Your task to perform on an android device: turn on airplane mode Image 0: 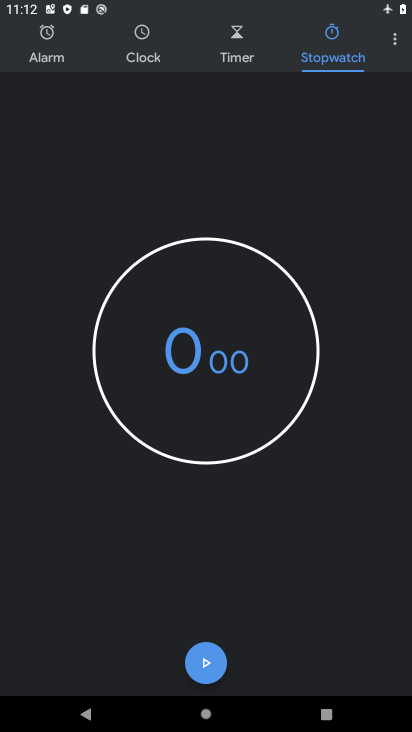
Step 0: press home button
Your task to perform on an android device: turn on airplane mode Image 1: 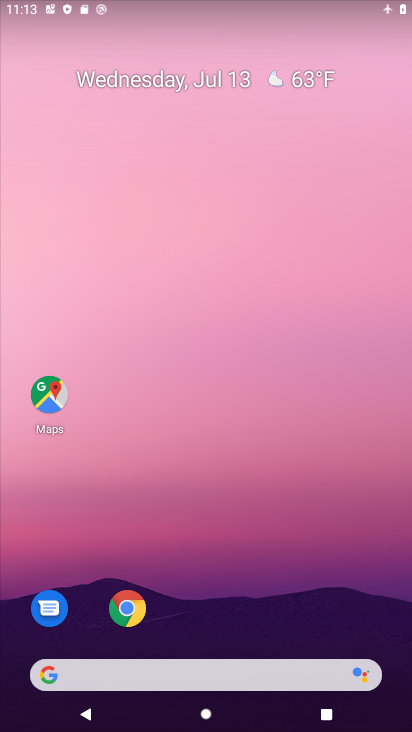
Step 1: task complete